Your task to perform on an android device: Go to ESPN.com Image 0: 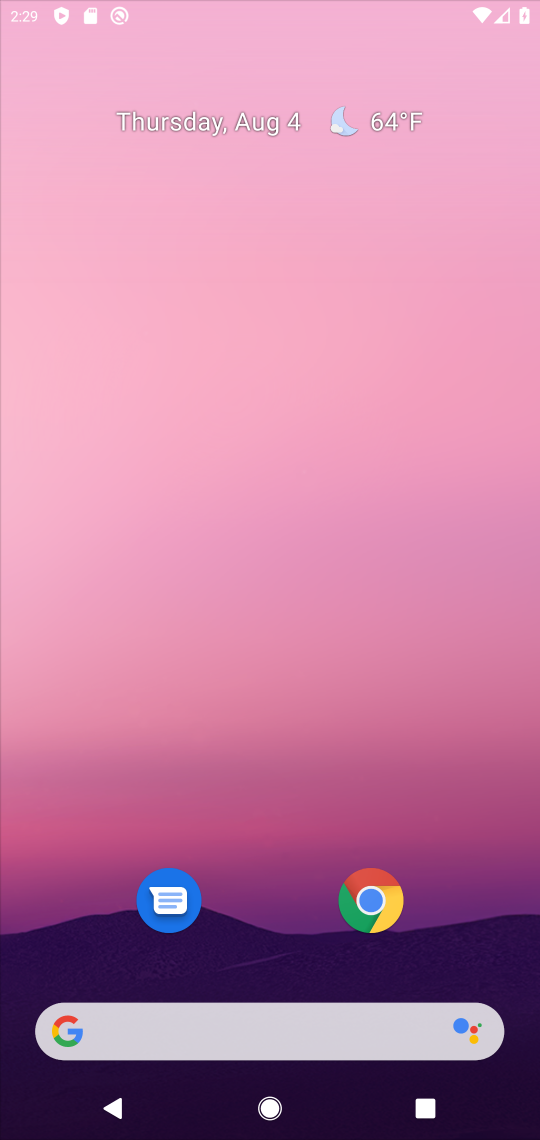
Step 0: press home button
Your task to perform on an android device: Go to ESPN.com Image 1: 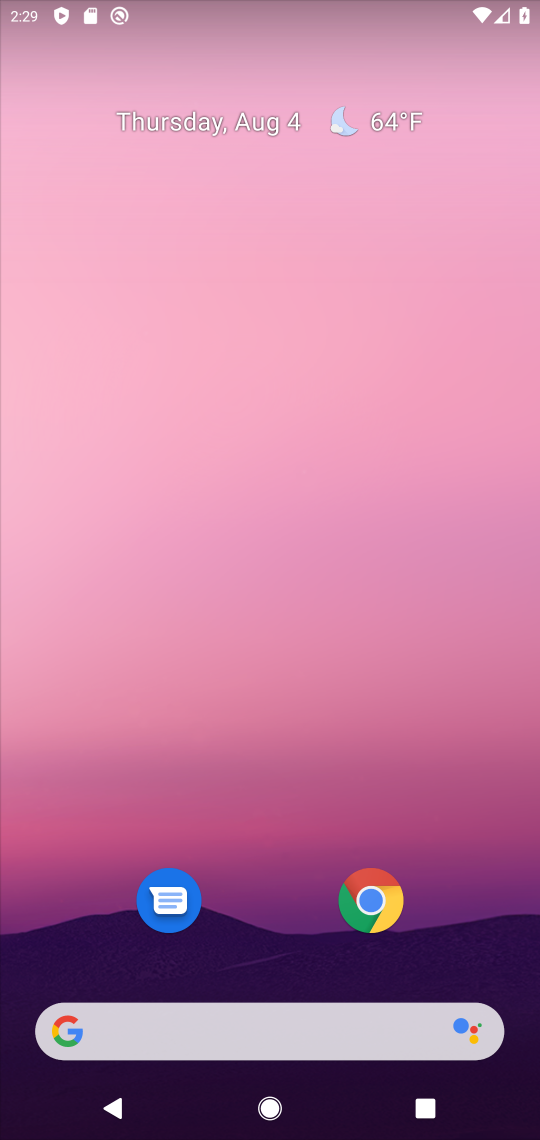
Step 1: drag from (492, 944) to (346, 15)
Your task to perform on an android device: Go to ESPN.com Image 2: 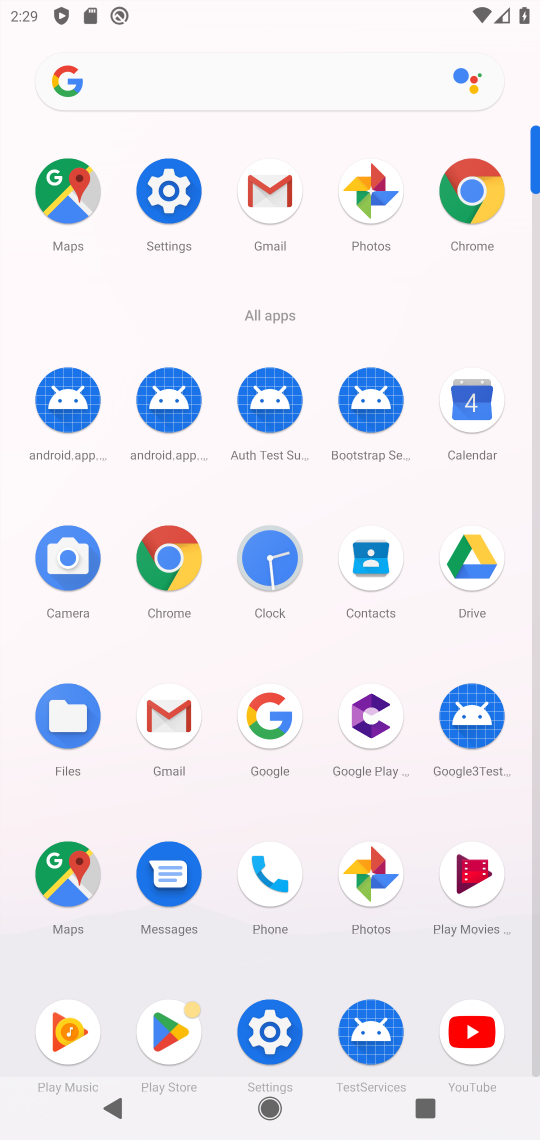
Step 2: click (480, 189)
Your task to perform on an android device: Go to ESPN.com Image 3: 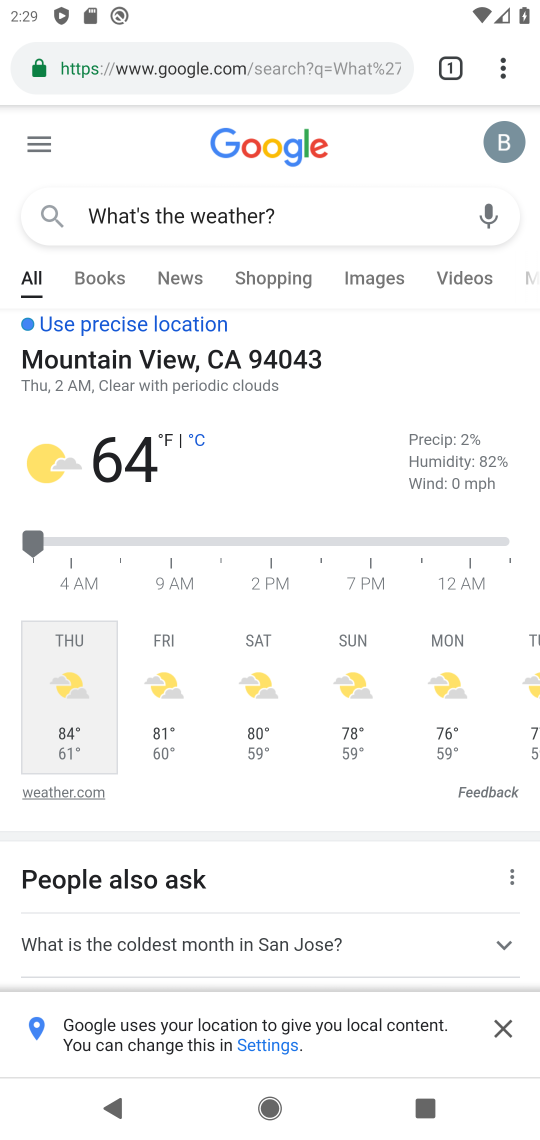
Step 3: click (259, 42)
Your task to perform on an android device: Go to ESPN.com Image 4: 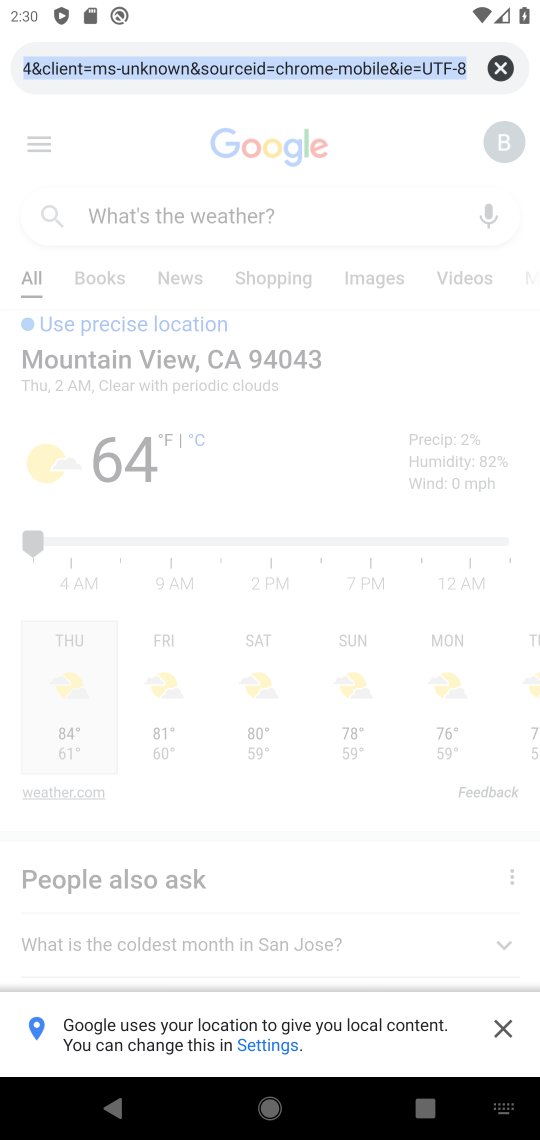
Step 4: type "espn.com"
Your task to perform on an android device: Go to ESPN.com Image 5: 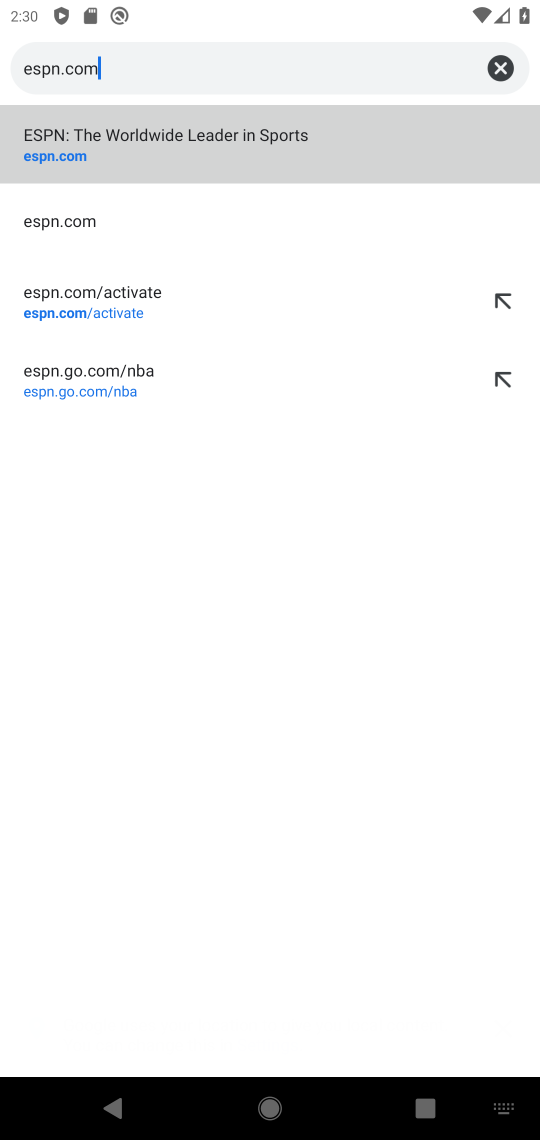
Step 5: click (285, 132)
Your task to perform on an android device: Go to ESPN.com Image 6: 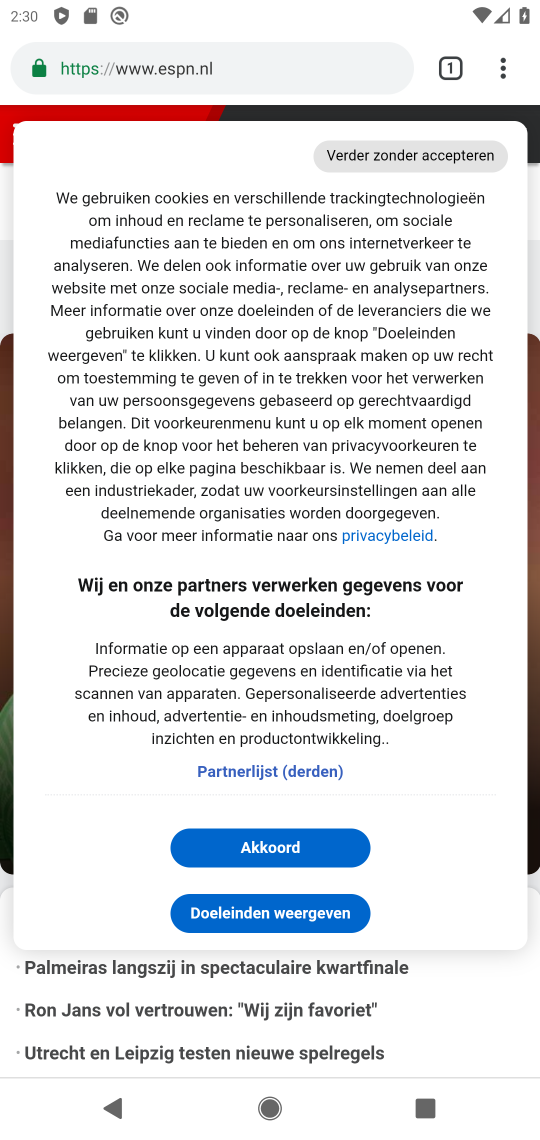
Step 6: task complete